Your task to perform on an android device: Go to ESPN.com Image 0: 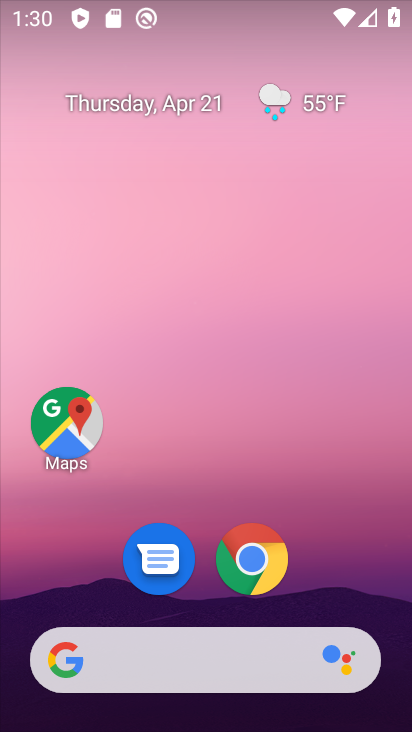
Step 0: drag from (200, 680) to (404, 157)
Your task to perform on an android device: Go to ESPN.com Image 1: 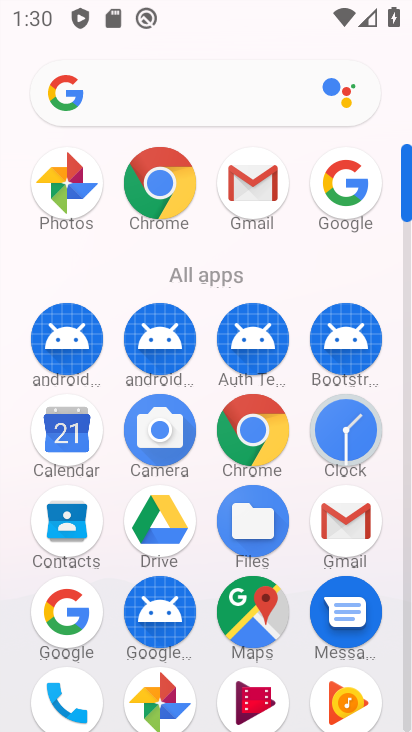
Step 1: click (158, 192)
Your task to perform on an android device: Go to ESPN.com Image 2: 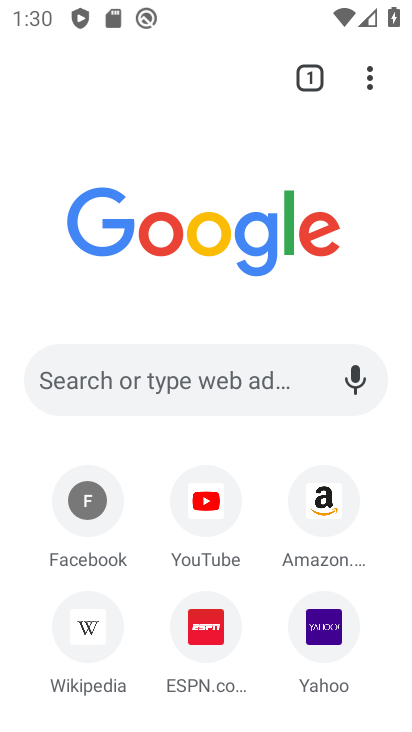
Step 2: click (122, 381)
Your task to perform on an android device: Go to ESPN.com Image 3: 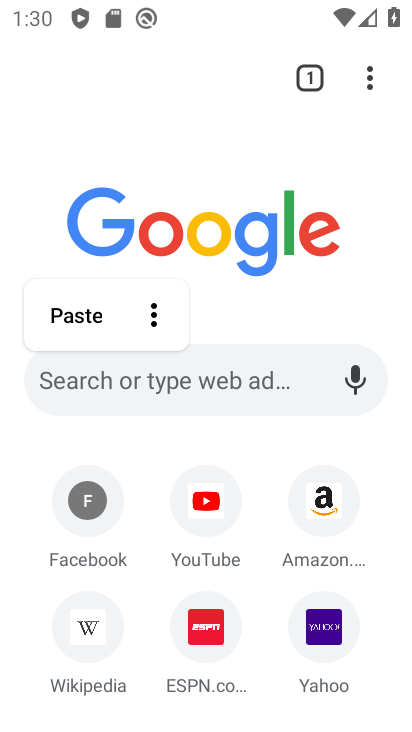
Step 3: type "espn.con"
Your task to perform on an android device: Go to ESPN.com Image 4: 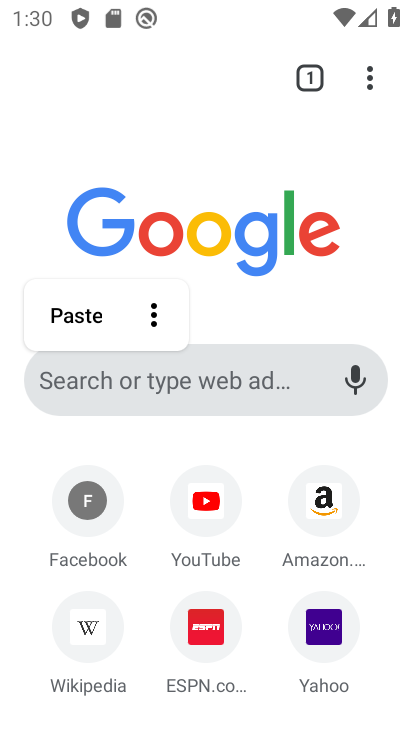
Step 4: click (189, 652)
Your task to perform on an android device: Go to ESPN.com Image 5: 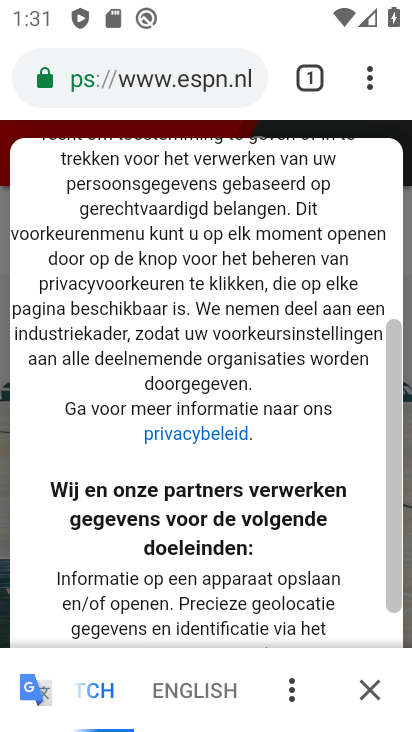
Step 5: task complete